Your task to perform on an android device: turn notification dots on Image 0: 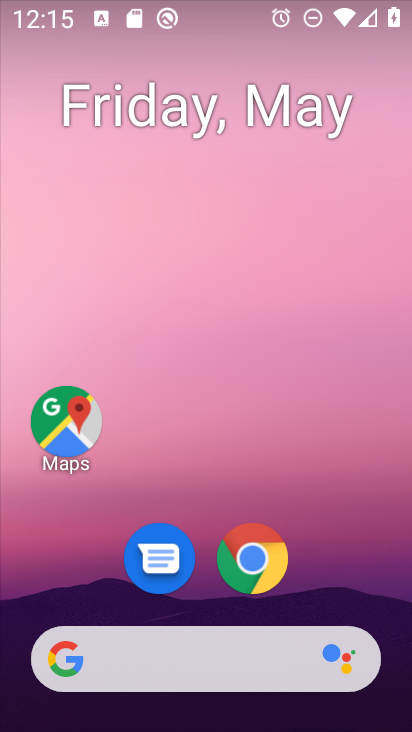
Step 0: drag from (388, 616) to (359, 89)
Your task to perform on an android device: turn notification dots on Image 1: 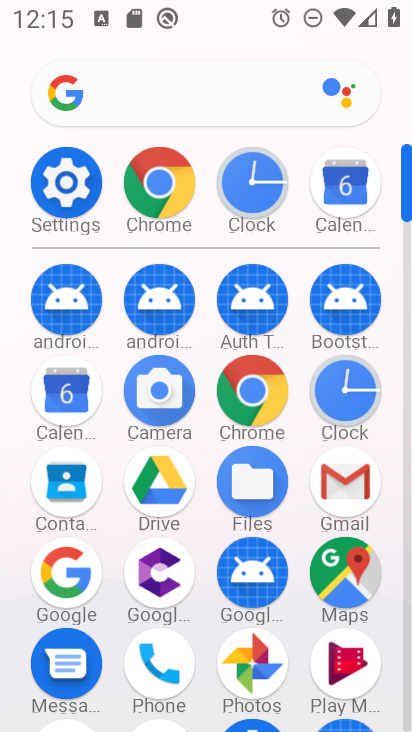
Step 1: click (409, 690)
Your task to perform on an android device: turn notification dots on Image 2: 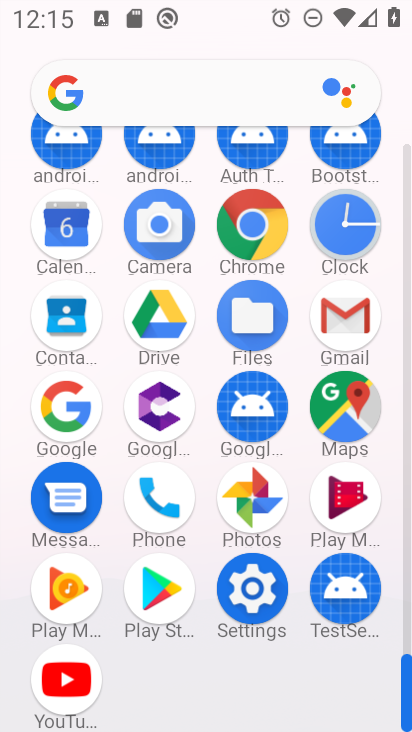
Step 2: click (251, 584)
Your task to perform on an android device: turn notification dots on Image 3: 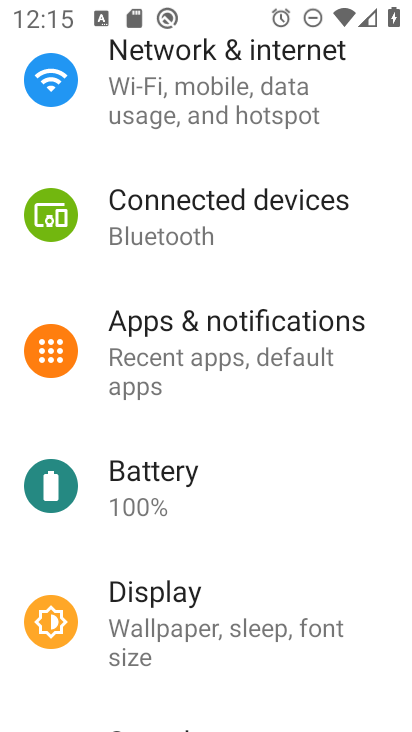
Step 3: click (215, 339)
Your task to perform on an android device: turn notification dots on Image 4: 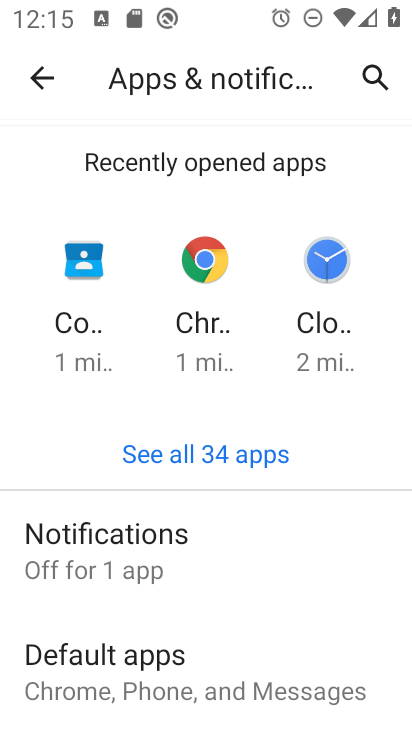
Step 4: click (100, 536)
Your task to perform on an android device: turn notification dots on Image 5: 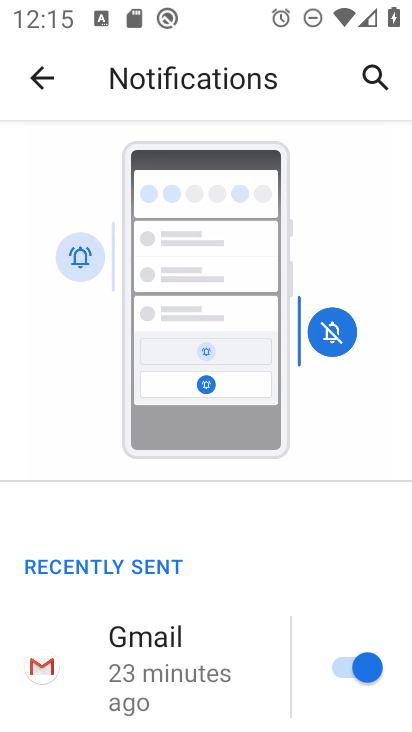
Step 5: drag from (278, 648) to (265, 144)
Your task to perform on an android device: turn notification dots on Image 6: 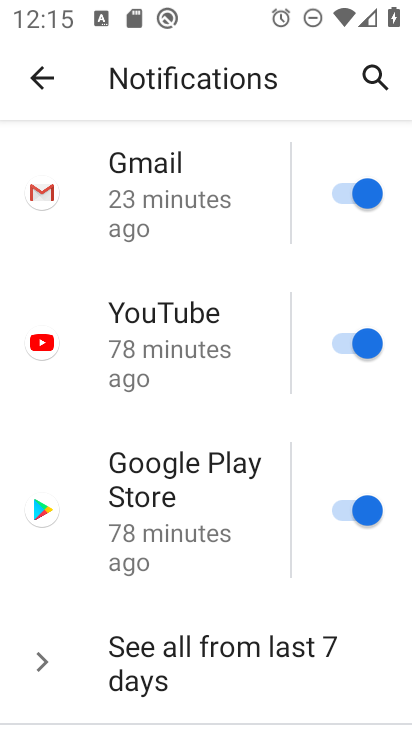
Step 6: drag from (290, 639) to (279, 106)
Your task to perform on an android device: turn notification dots on Image 7: 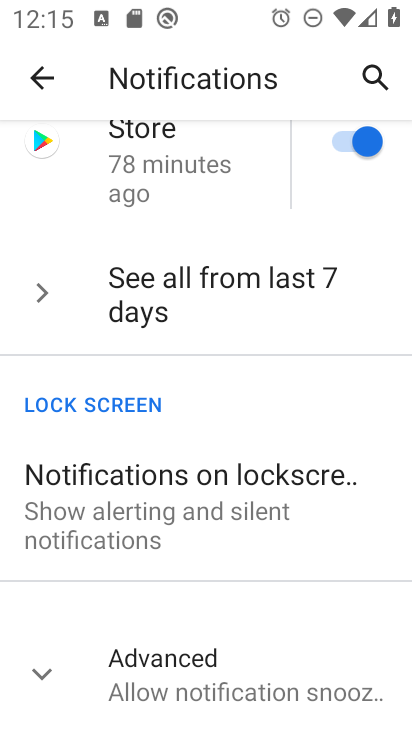
Step 7: click (47, 674)
Your task to perform on an android device: turn notification dots on Image 8: 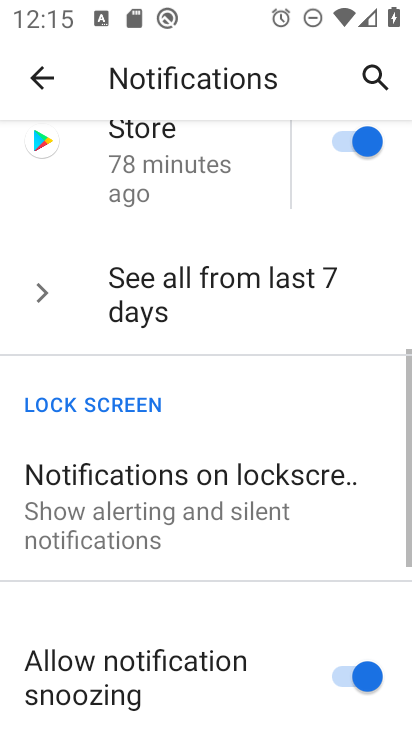
Step 8: task complete